Your task to perform on an android device: toggle translation in the chrome app Image 0: 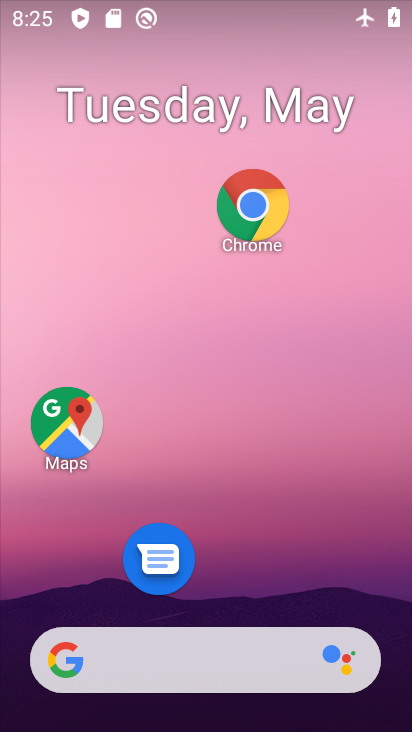
Step 0: click (237, 213)
Your task to perform on an android device: toggle translation in the chrome app Image 1: 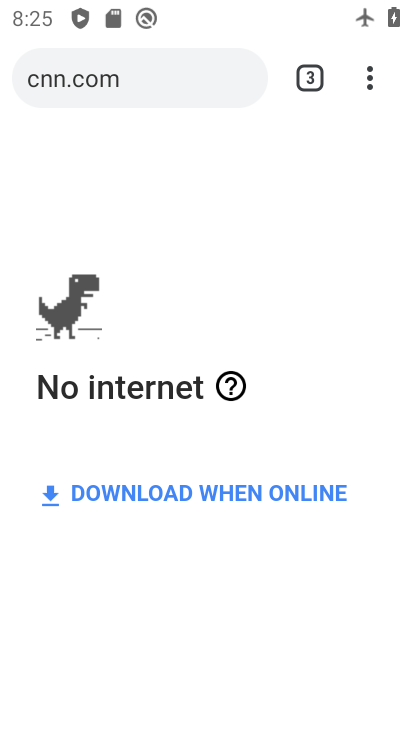
Step 1: drag from (367, 82) to (165, 621)
Your task to perform on an android device: toggle translation in the chrome app Image 2: 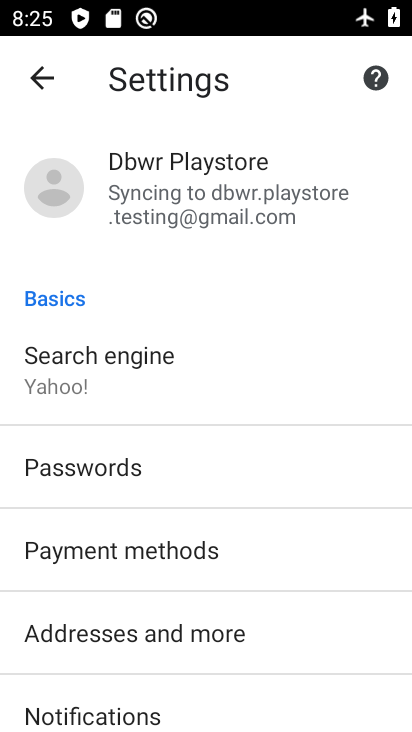
Step 2: drag from (196, 661) to (223, 311)
Your task to perform on an android device: toggle translation in the chrome app Image 3: 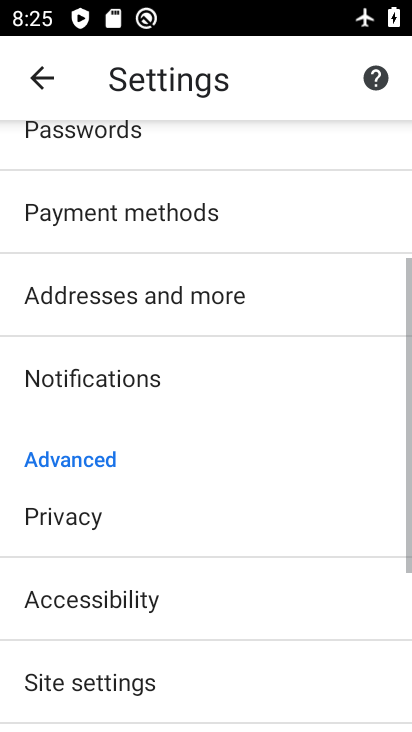
Step 3: drag from (219, 598) to (255, 343)
Your task to perform on an android device: toggle translation in the chrome app Image 4: 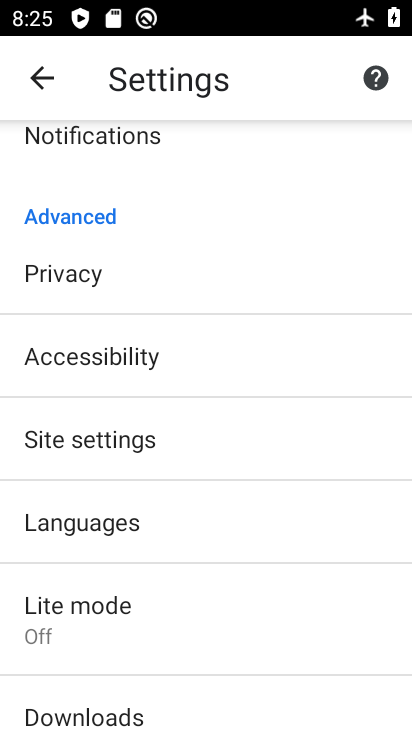
Step 4: click (175, 546)
Your task to perform on an android device: toggle translation in the chrome app Image 5: 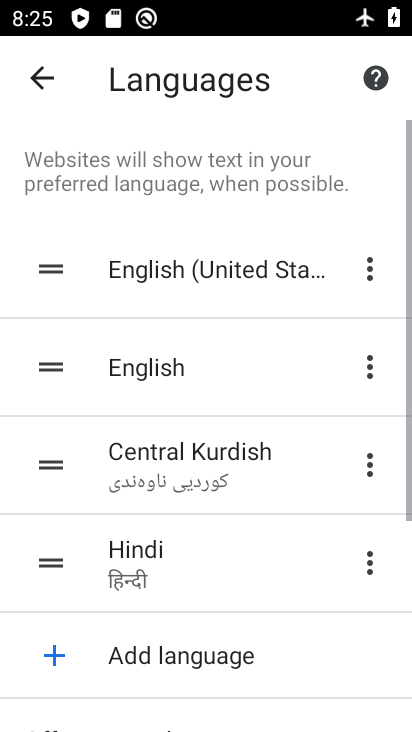
Step 5: drag from (289, 577) to (313, 253)
Your task to perform on an android device: toggle translation in the chrome app Image 6: 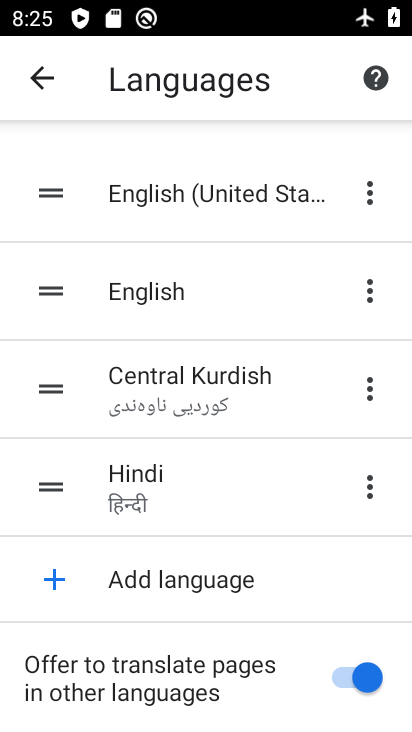
Step 6: click (345, 666)
Your task to perform on an android device: toggle translation in the chrome app Image 7: 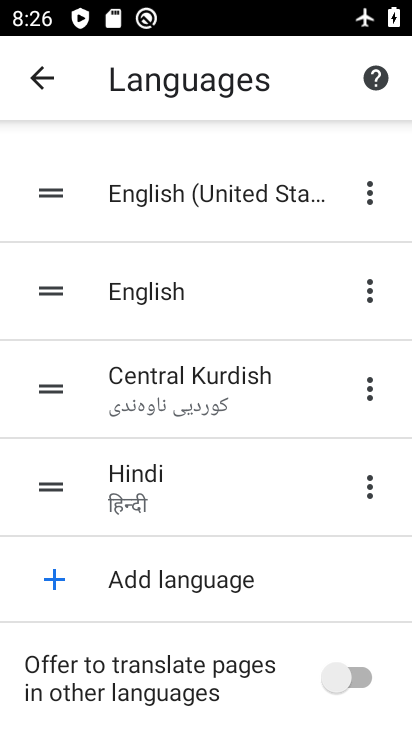
Step 7: task complete